Your task to perform on an android device: Open battery settings Image 0: 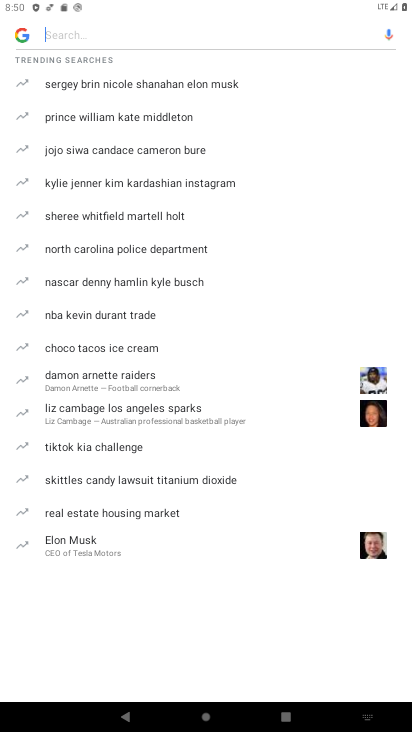
Step 0: press home button
Your task to perform on an android device: Open battery settings Image 1: 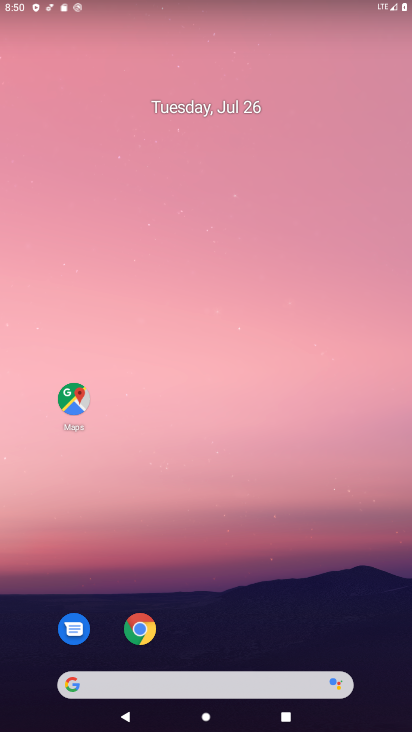
Step 1: drag from (203, 656) to (112, 78)
Your task to perform on an android device: Open battery settings Image 2: 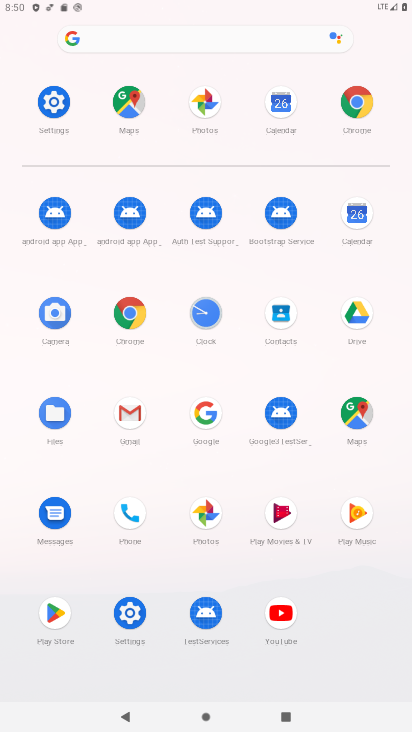
Step 2: click (123, 614)
Your task to perform on an android device: Open battery settings Image 3: 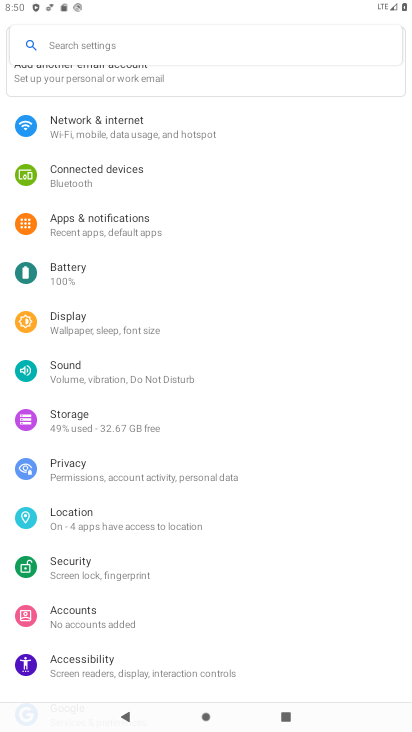
Step 3: click (57, 272)
Your task to perform on an android device: Open battery settings Image 4: 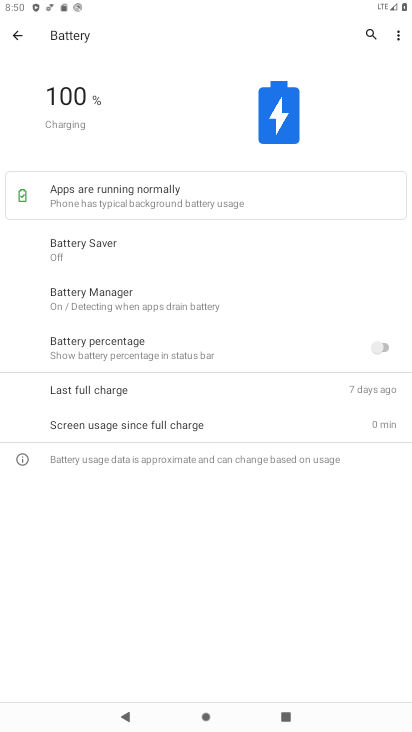
Step 4: task complete